Your task to perform on an android device: set the timer Image 0: 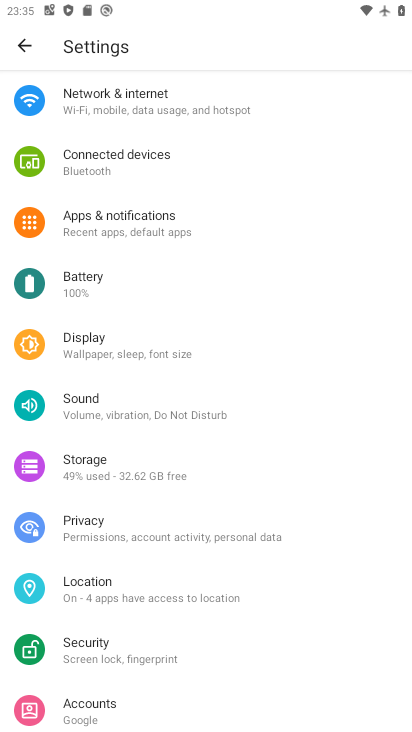
Step 0: click (24, 46)
Your task to perform on an android device: set the timer Image 1: 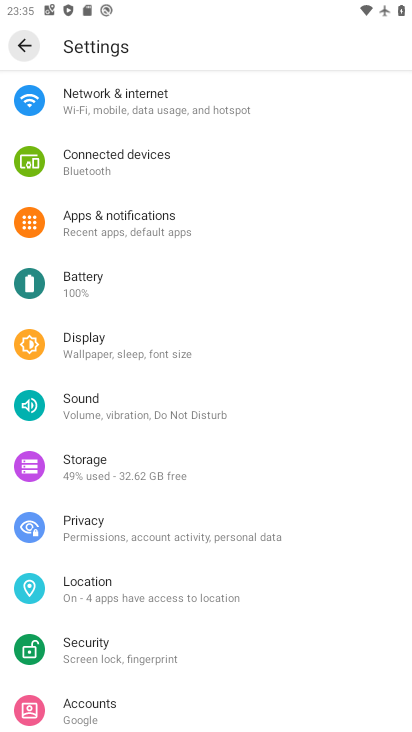
Step 1: click (26, 47)
Your task to perform on an android device: set the timer Image 2: 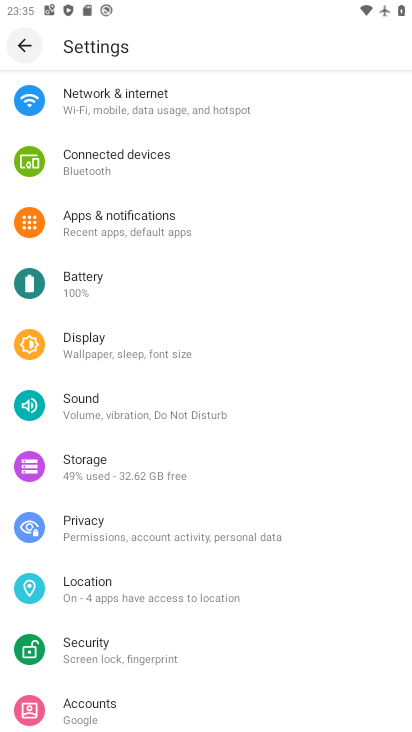
Step 2: click (26, 47)
Your task to perform on an android device: set the timer Image 3: 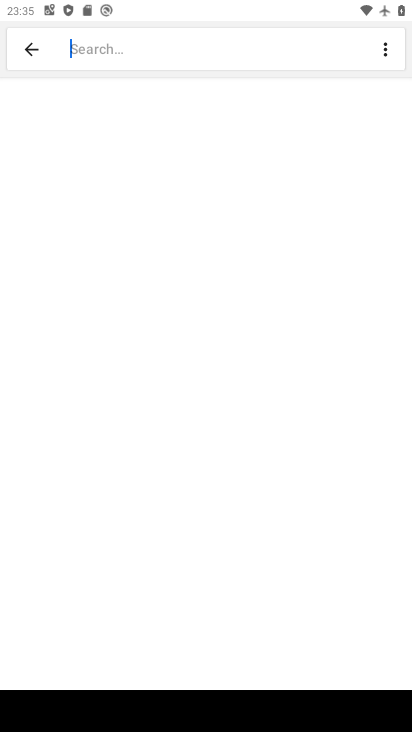
Step 3: click (34, 48)
Your task to perform on an android device: set the timer Image 4: 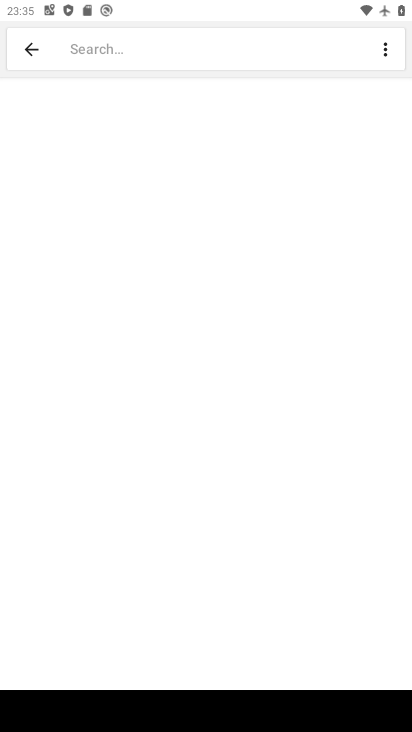
Step 4: click (34, 48)
Your task to perform on an android device: set the timer Image 5: 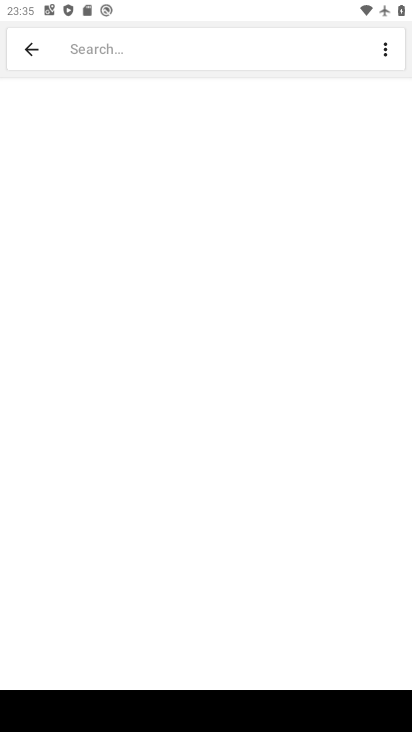
Step 5: click (34, 48)
Your task to perform on an android device: set the timer Image 6: 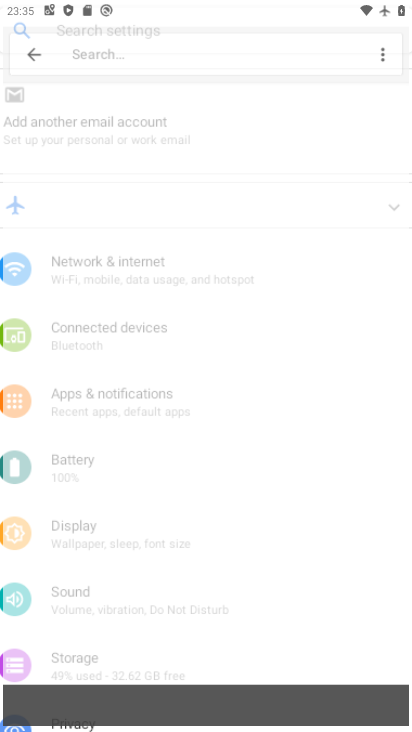
Step 6: click (32, 47)
Your task to perform on an android device: set the timer Image 7: 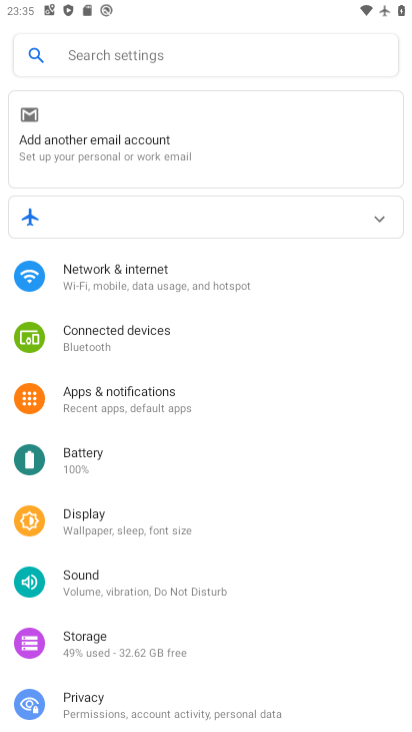
Step 7: click (32, 45)
Your task to perform on an android device: set the timer Image 8: 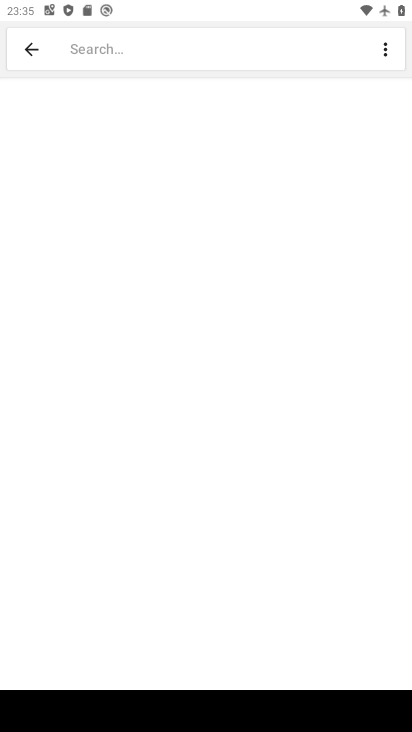
Step 8: click (23, 53)
Your task to perform on an android device: set the timer Image 9: 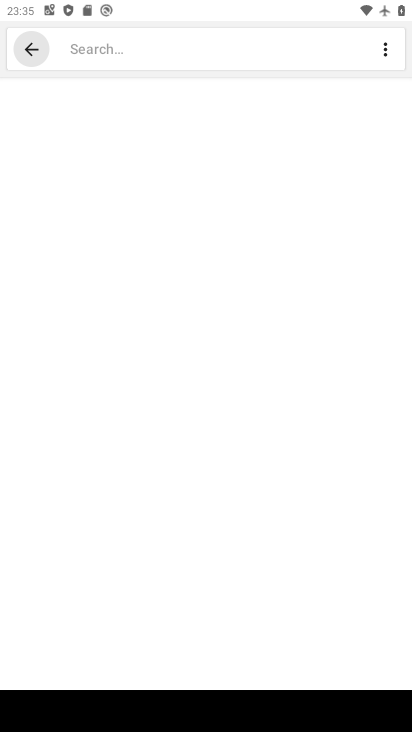
Step 9: click (29, 55)
Your task to perform on an android device: set the timer Image 10: 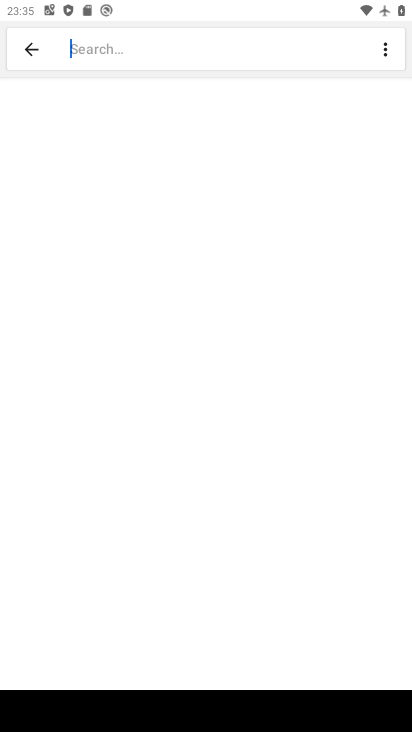
Step 10: click (22, 35)
Your task to perform on an android device: set the timer Image 11: 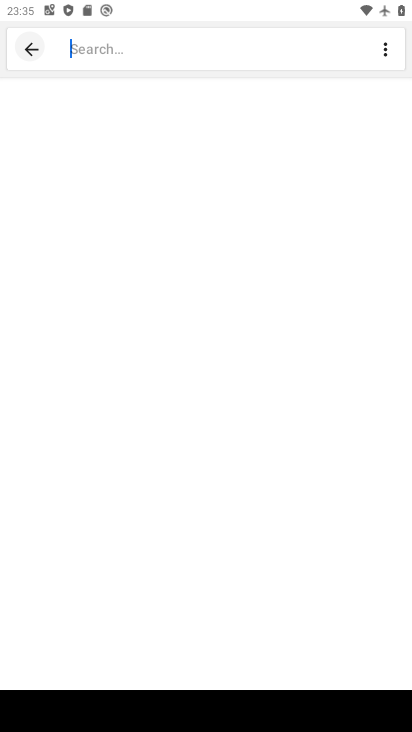
Step 11: click (29, 36)
Your task to perform on an android device: set the timer Image 12: 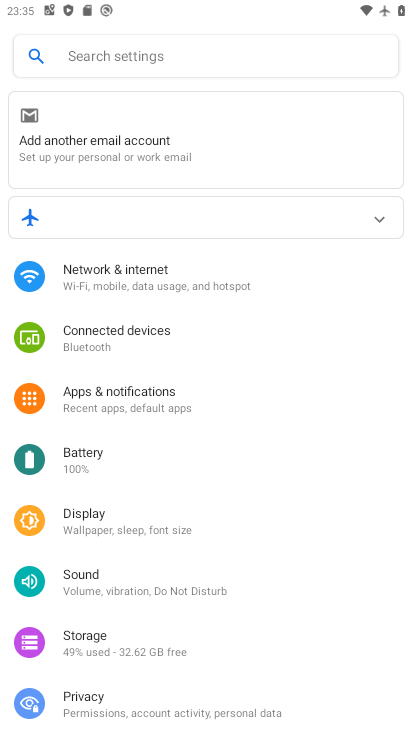
Step 12: press back button
Your task to perform on an android device: set the timer Image 13: 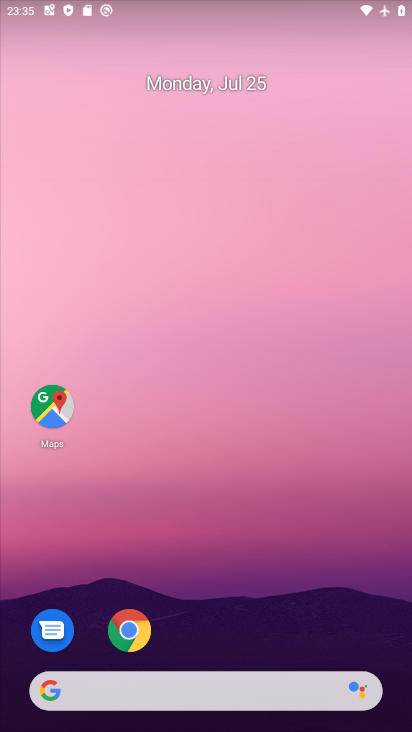
Step 13: drag from (237, 614) to (205, 237)
Your task to perform on an android device: set the timer Image 14: 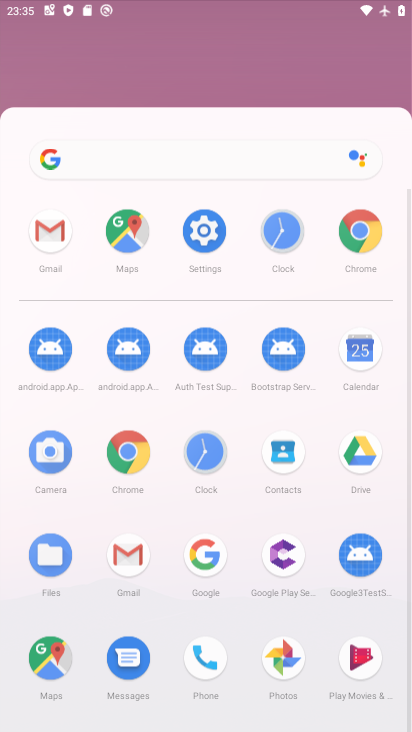
Step 14: drag from (252, 536) to (259, 6)
Your task to perform on an android device: set the timer Image 15: 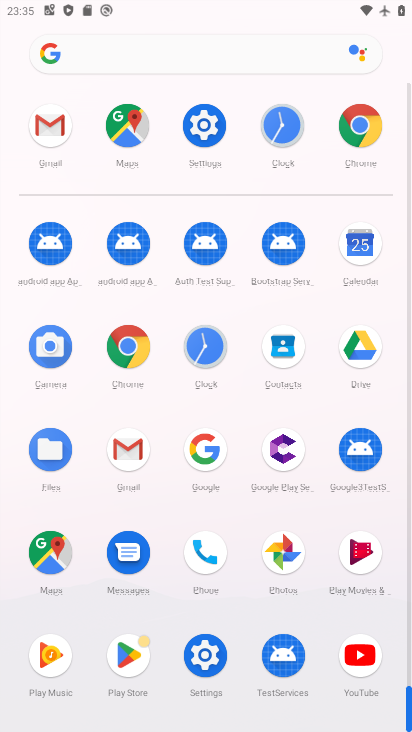
Step 15: click (207, 349)
Your task to perform on an android device: set the timer Image 16: 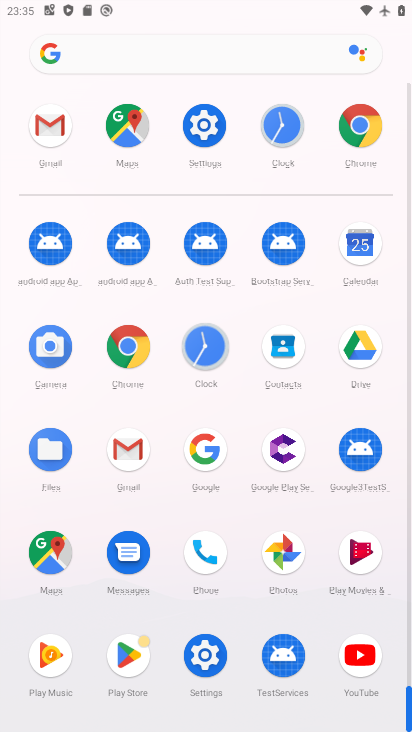
Step 16: click (207, 346)
Your task to perform on an android device: set the timer Image 17: 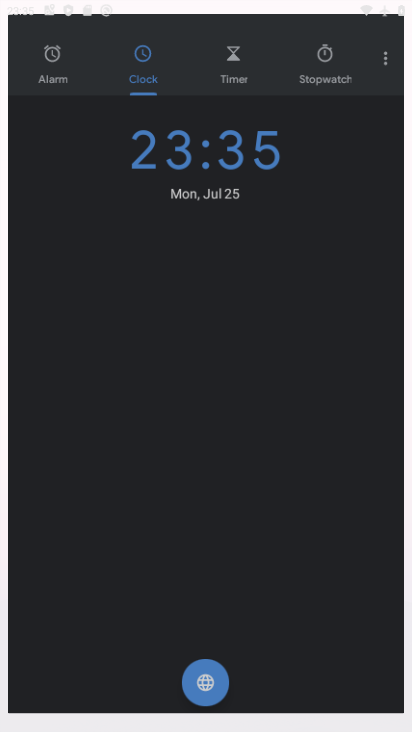
Step 17: click (207, 344)
Your task to perform on an android device: set the timer Image 18: 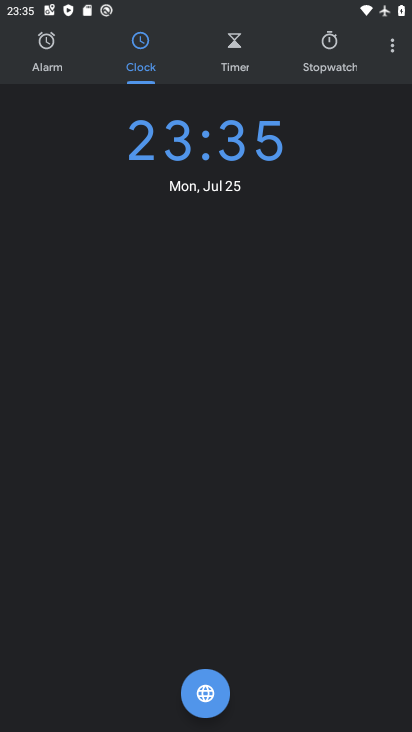
Step 18: click (207, 344)
Your task to perform on an android device: set the timer Image 19: 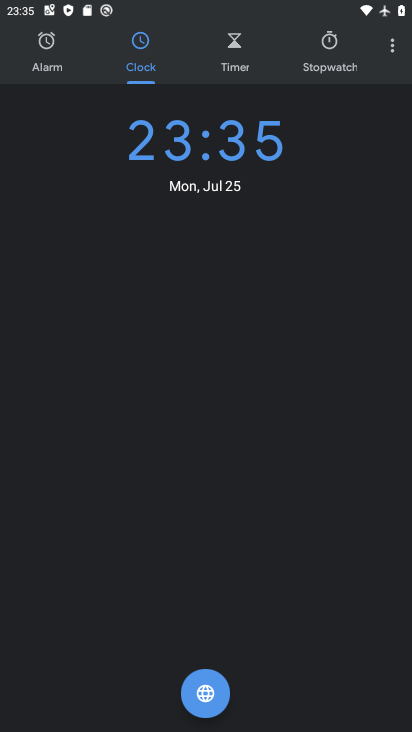
Step 19: click (231, 53)
Your task to perform on an android device: set the timer Image 20: 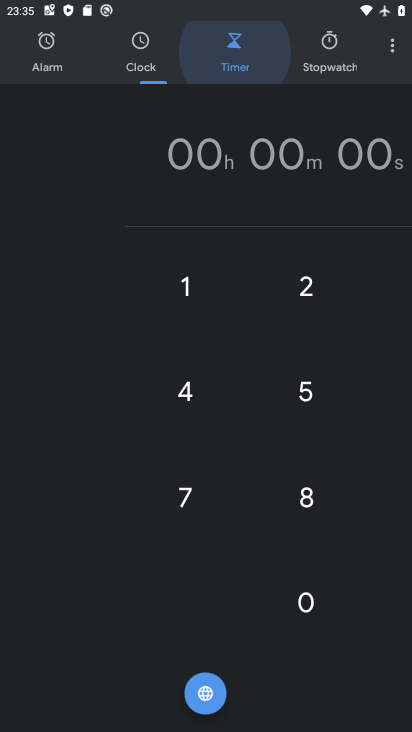
Step 20: click (231, 53)
Your task to perform on an android device: set the timer Image 21: 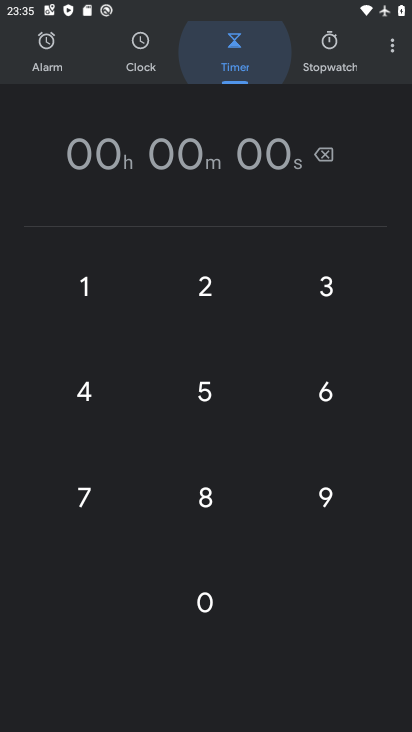
Step 21: click (231, 53)
Your task to perform on an android device: set the timer Image 22: 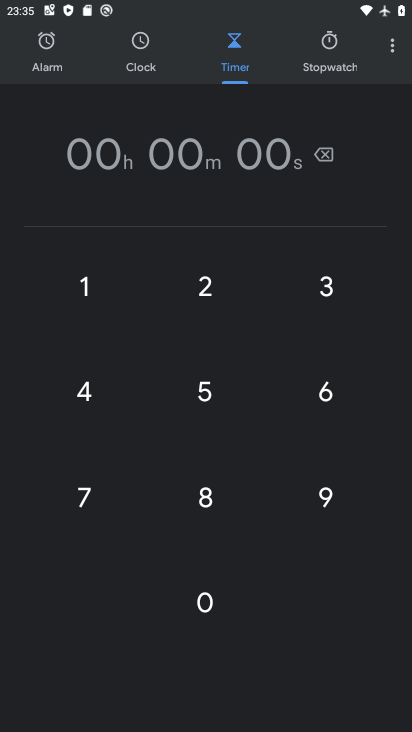
Step 22: click (201, 367)
Your task to perform on an android device: set the timer Image 23: 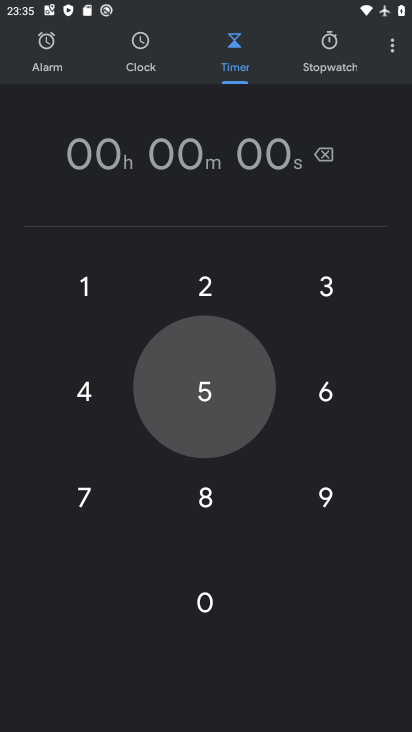
Step 23: click (203, 386)
Your task to perform on an android device: set the timer Image 24: 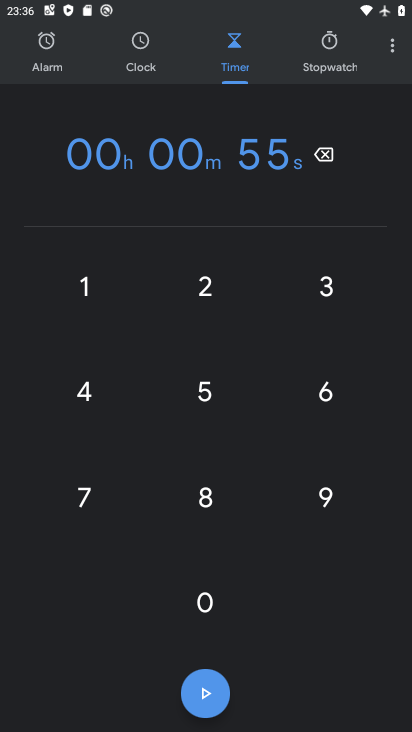
Step 24: click (207, 691)
Your task to perform on an android device: set the timer Image 25: 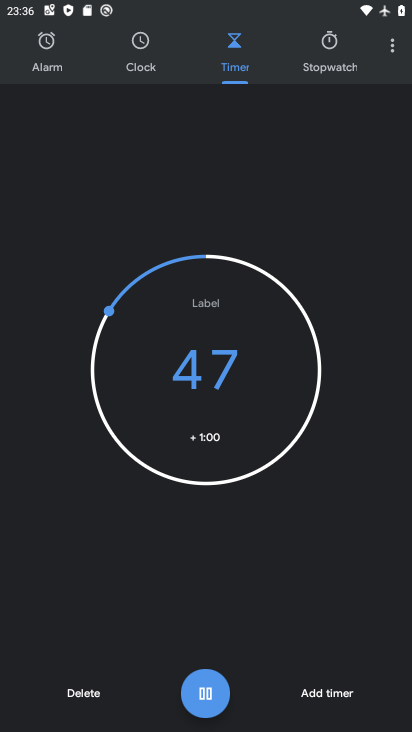
Step 25: click (102, 419)
Your task to perform on an android device: set the timer Image 26: 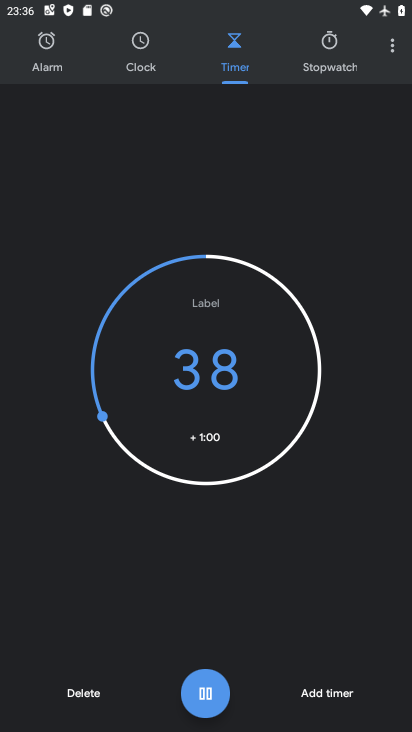
Step 26: click (215, 697)
Your task to perform on an android device: set the timer Image 27: 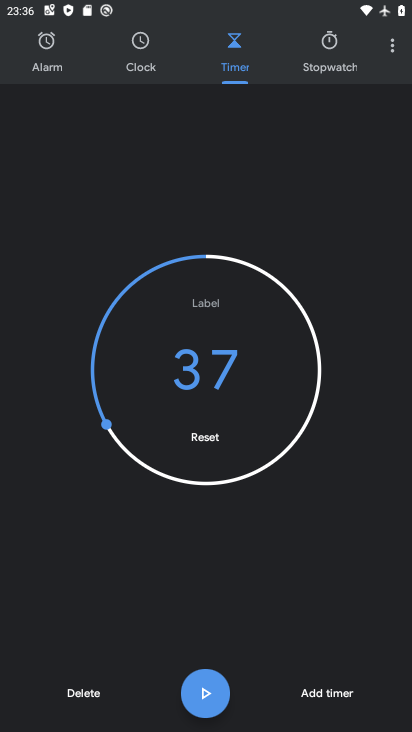
Step 27: click (203, 693)
Your task to perform on an android device: set the timer Image 28: 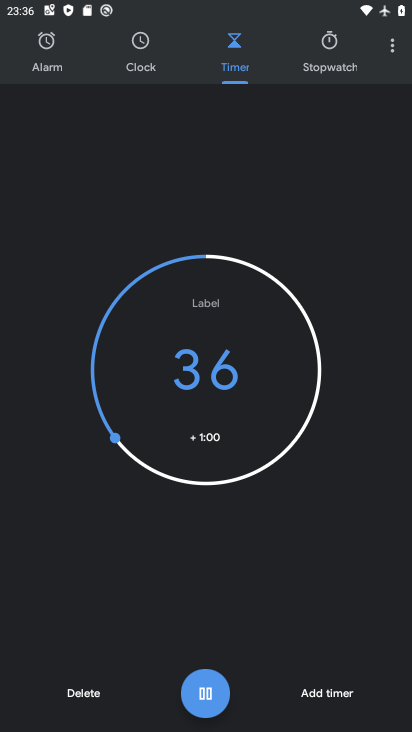
Step 28: click (210, 698)
Your task to perform on an android device: set the timer Image 29: 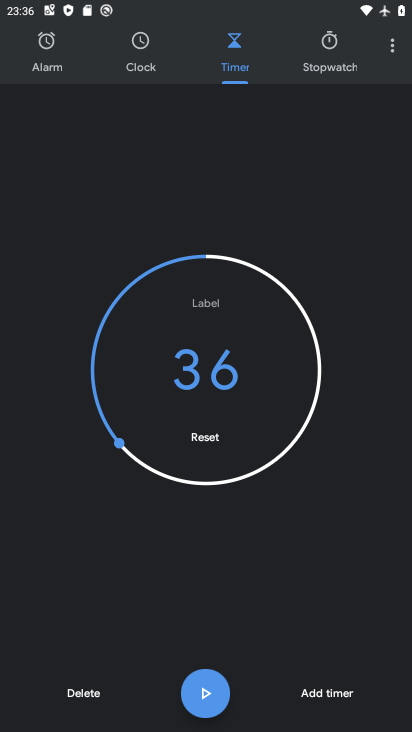
Step 29: task complete